Your task to perform on an android device: delete location history Image 0: 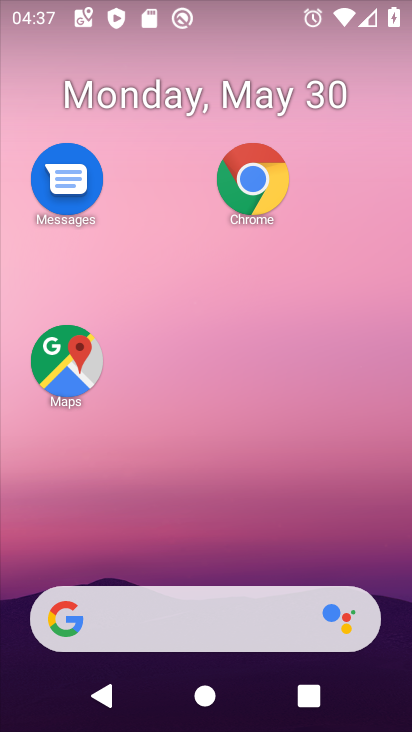
Step 0: click (56, 373)
Your task to perform on an android device: delete location history Image 1: 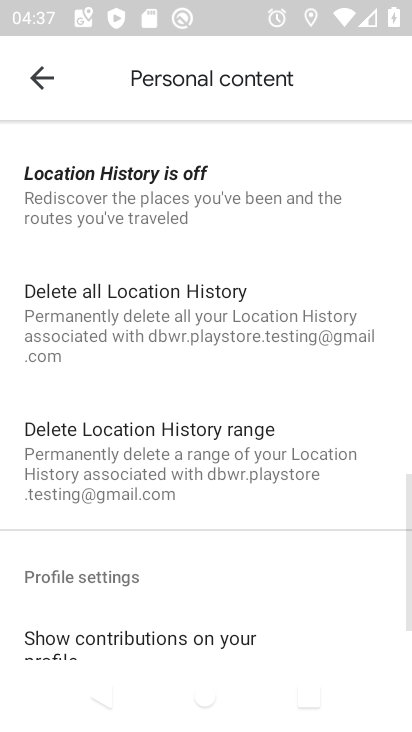
Step 1: click (166, 330)
Your task to perform on an android device: delete location history Image 2: 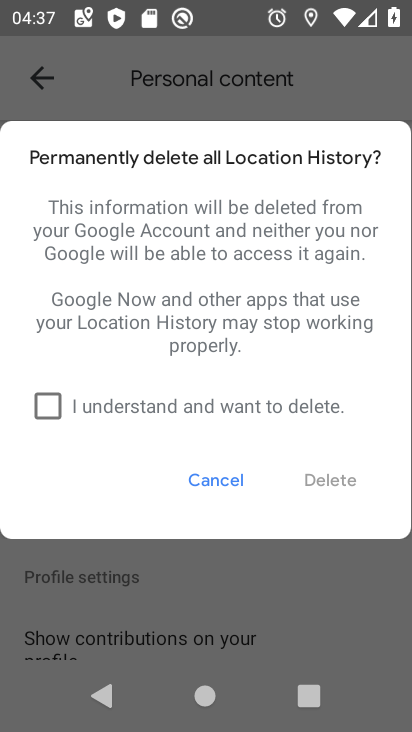
Step 2: click (49, 406)
Your task to perform on an android device: delete location history Image 3: 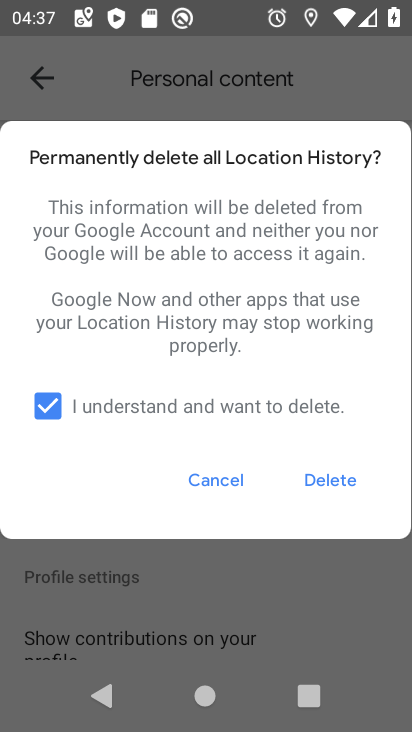
Step 3: click (334, 482)
Your task to perform on an android device: delete location history Image 4: 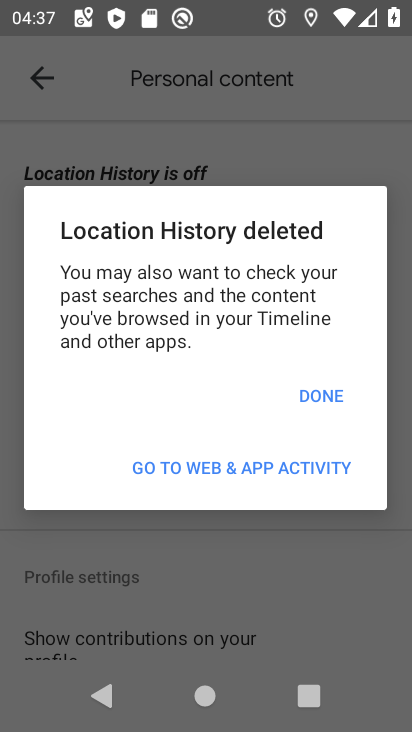
Step 4: task complete